Your task to perform on an android device: Open settings Image 0: 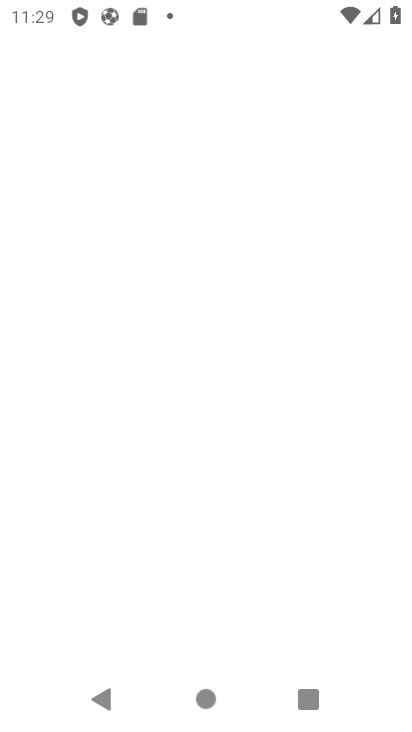
Step 0: drag from (236, 197) to (251, 52)
Your task to perform on an android device: Open settings Image 1: 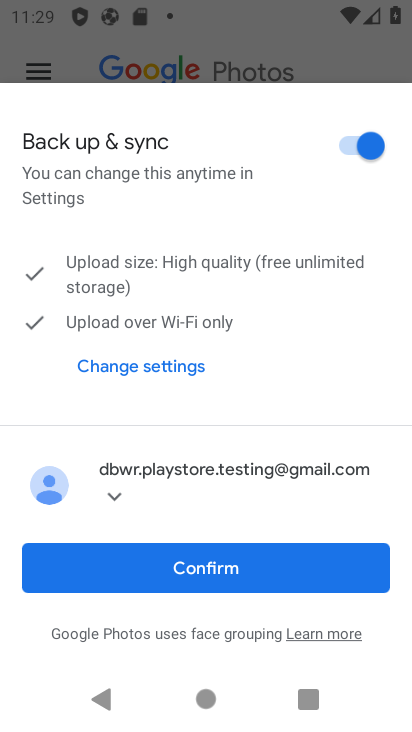
Step 1: click (241, 570)
Your task to perform on an android device: Open settings Image 2: 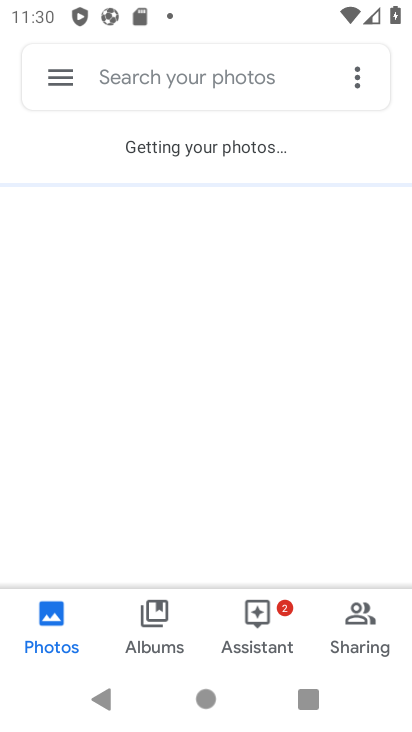
Step 2: press home button
Your task to perform on an android device: Open settings Image 3: 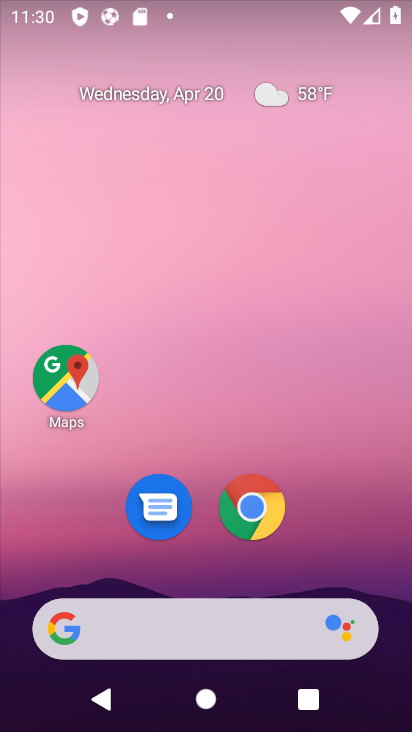
Step 3: drag from (264, 702) to (204, 112)
Your task to perform on an android device: Open settings Image 4: 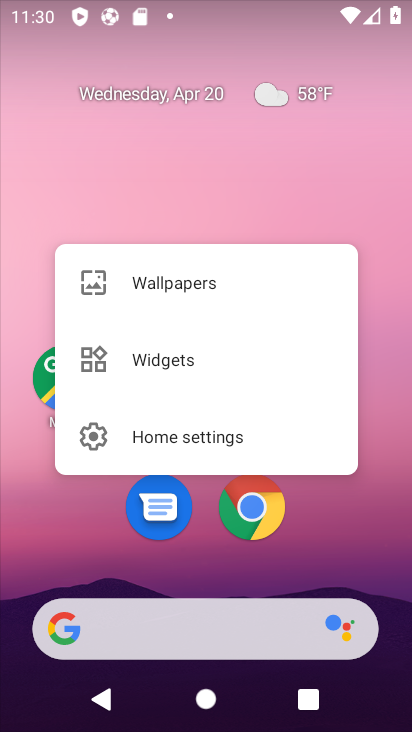
Step 4: click (352, 215)
Your task to perform on an android device: Open settings Image 5: 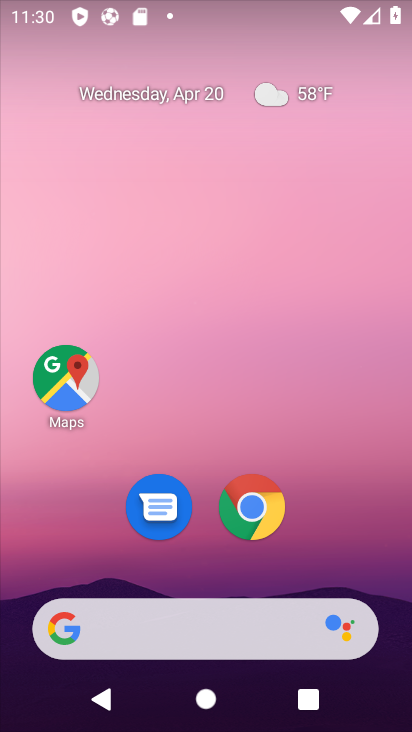
Step 5: click (348, 223)
Your task to perform on an android device: Open settings Image 6: 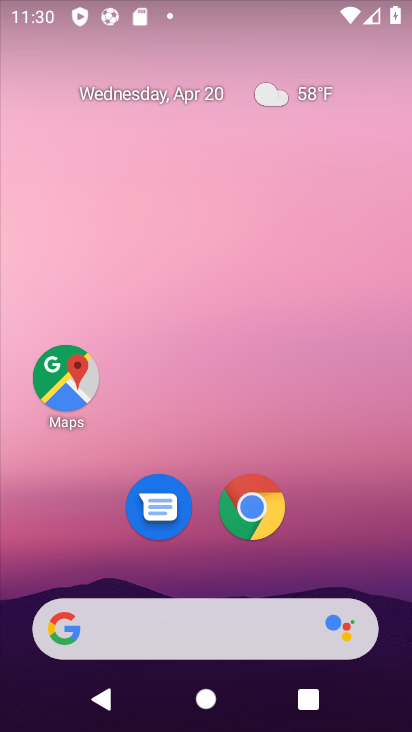
Step 6: drag from (265, 419) to (158, 68)
Your task to perform on an android device: Open settings Image 7: 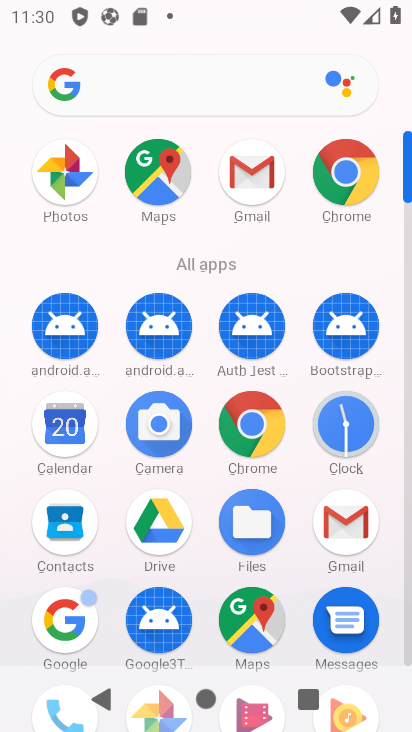
Step 7: drag from (299, 563) to (251, 145)
Your task to perform on an android device: Open settings Image 8: 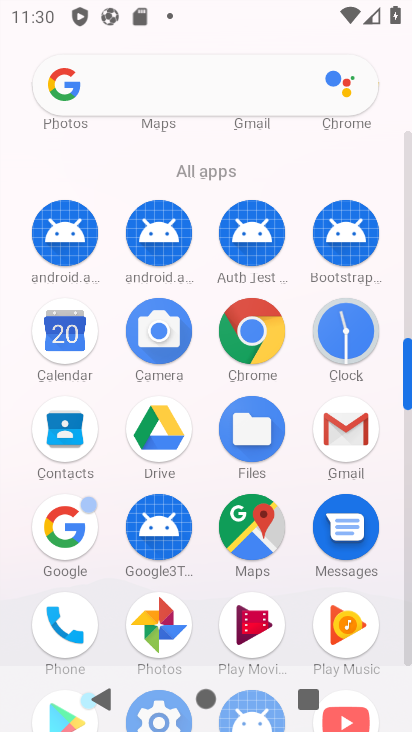
Step 8: drag from (283, 329) to (271, 247)
Your task to perform on an android device: Open settings Image 9: 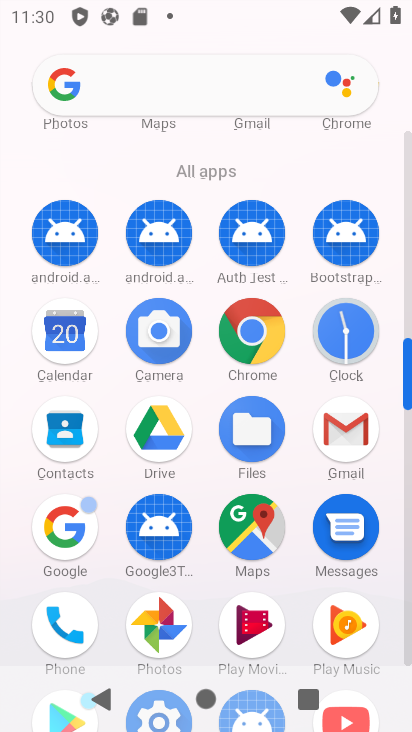
Step 9: drag from (182, 604) to (171, 208)
Your task to perform on an android device: Open settings Image 10: 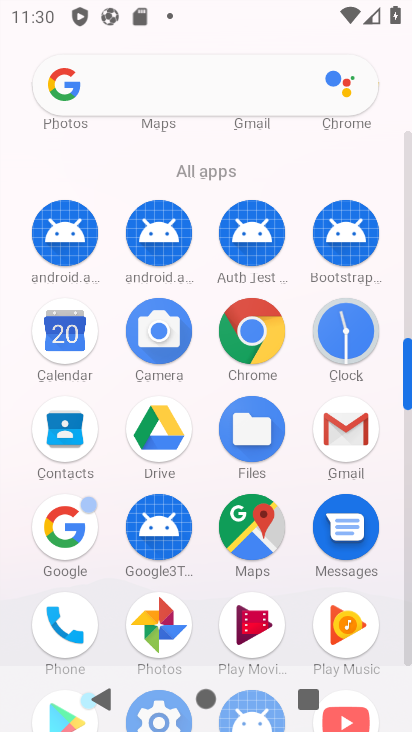
Step 10: drag from (189, 521) to (132, 273)
Your task to perform on an android device: Open settings Image 11: 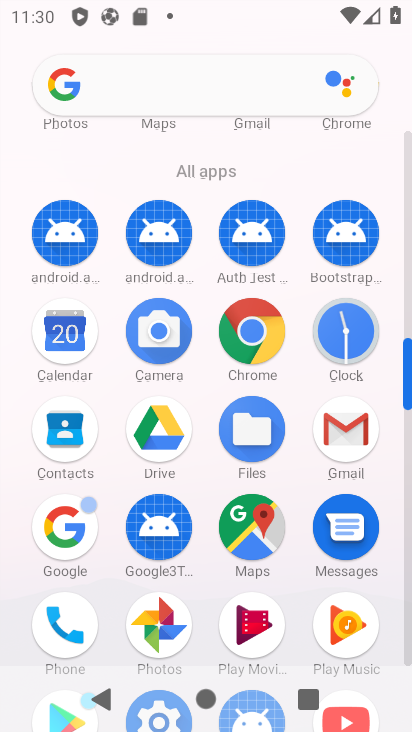
Step 11: drag from (200, 545) to (200, 379)
Your task to perform on an android device: Open settings Image 12: 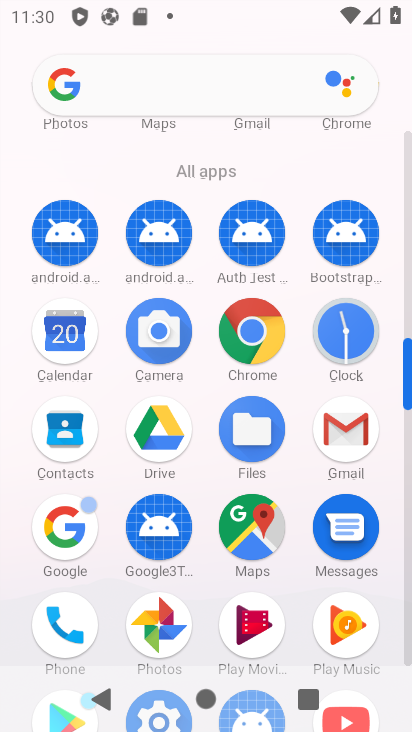
Step 12: drag from (280, 584) to (348, 99)
Your task to perform on an android device: Open settings Image 13: 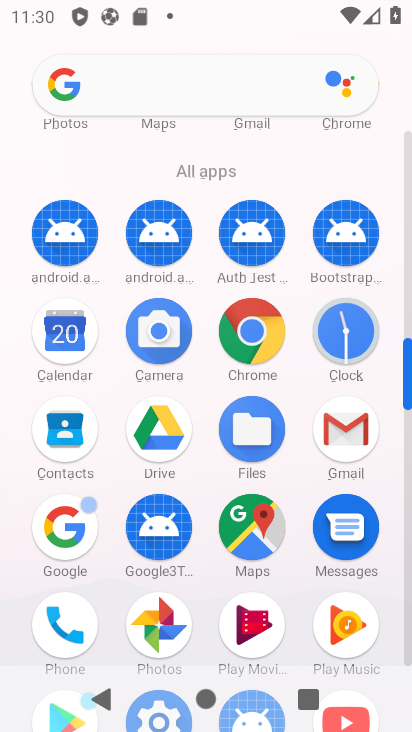
Step 13: drag from (186, 594) to (203, 176)
Your task to perform on an android device: Open settings Image 14: 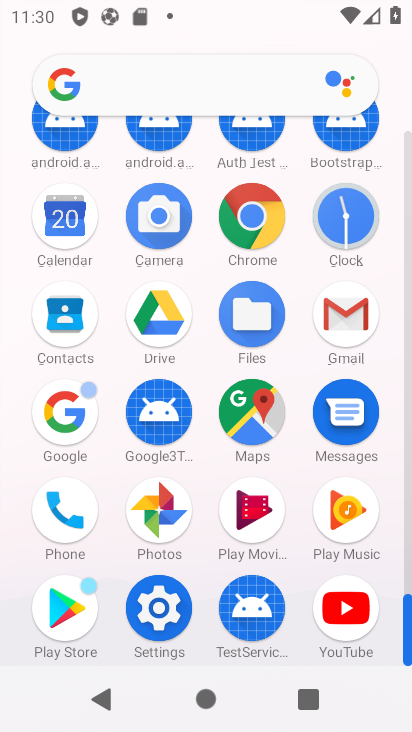
Step 14: click (152, 615)
Your task to perform on an android device: Open settings Image 15: 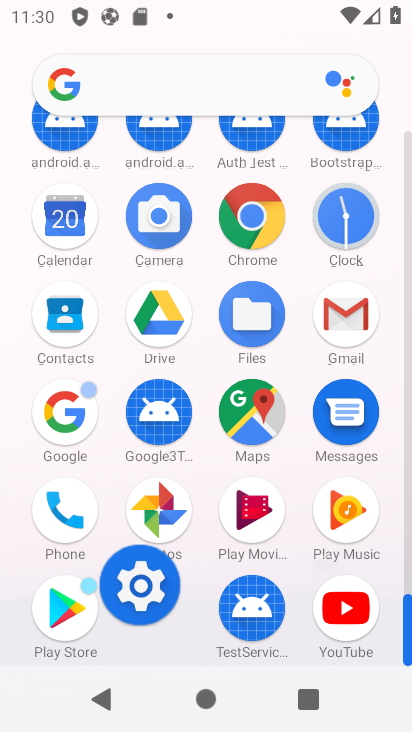
Step 15: click (151, 595)
Your task to perform on an android device: Open settings Image 16: 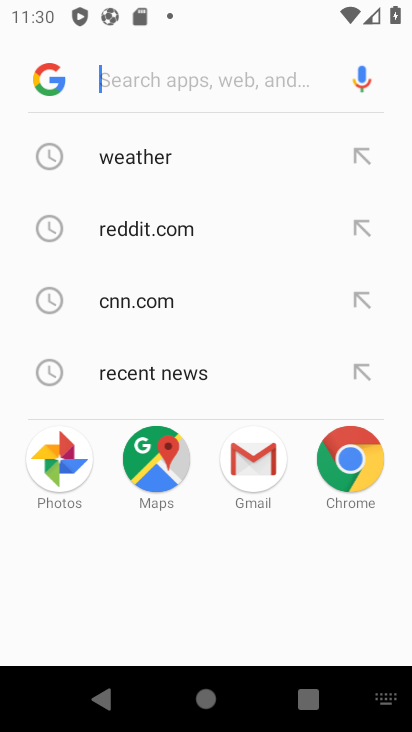
Step 16: press home button
Your task to perform on an android device: Open settings Image 17: 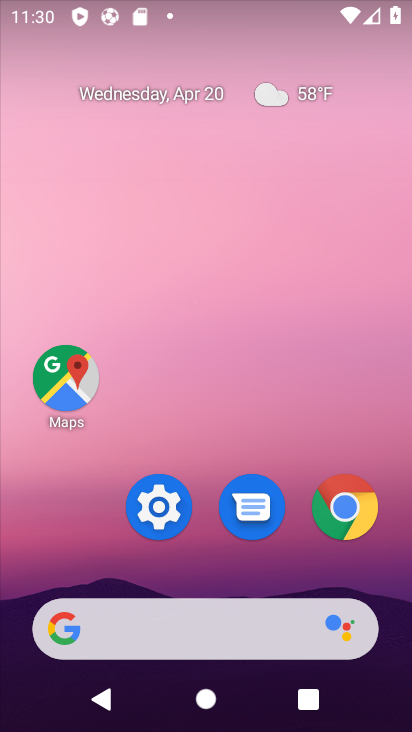
Step 17: drag from (236, 685) to (188, 85)
Your task to perform on an android device: Open settings Image 18: 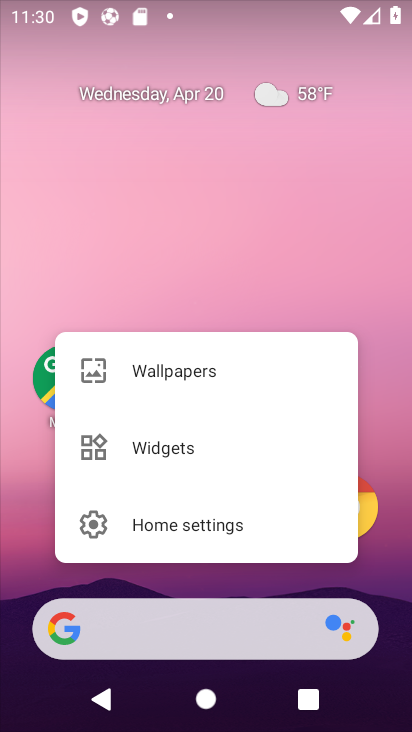
Step 18: drag from (271, 479) to (242, 20)
Your task to perform on an android device: Open settings Image 19: 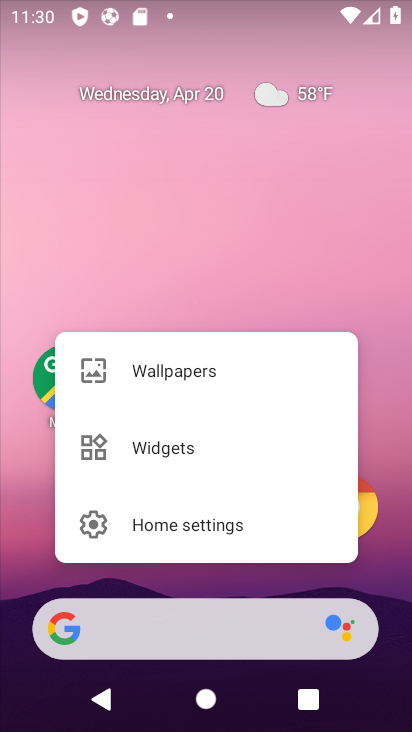
Step 19: drag from (383, 499) to (394, 72)
Your task to perform on an android device: Open settings Image 20: 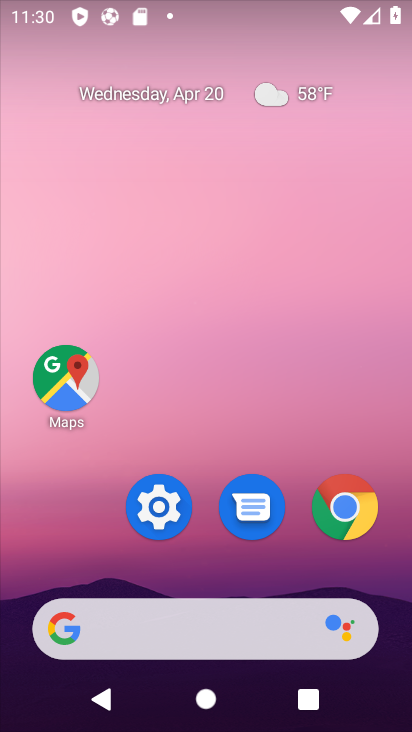
Step 20: drag from (352, 395) to (335, 23)
Your task to perform on an android device: Open settings Image 21: 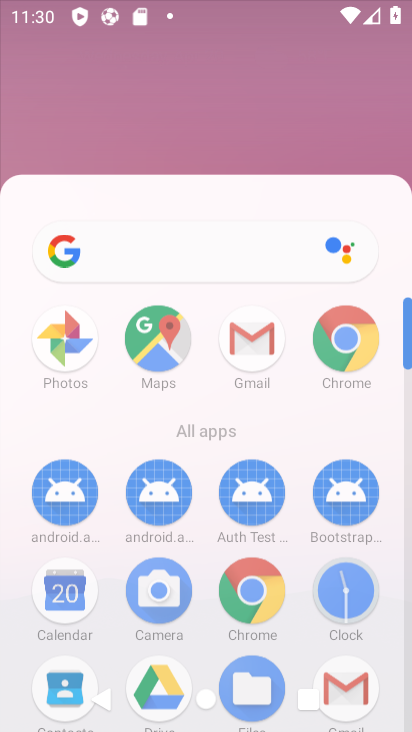
Step 21: drag from (226, 204) to (208, 40)
Your task to perform on an android device: Open settings Image 22: 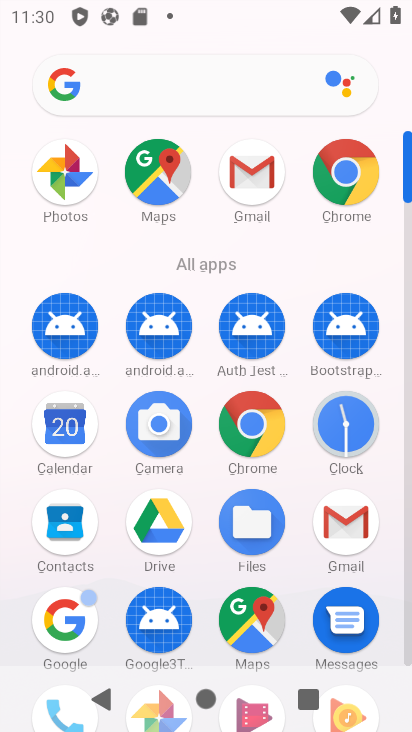
Step 22: drag from (210, 462) to (189, 58)
Your task to perform on an android device: Open settings Image 23: 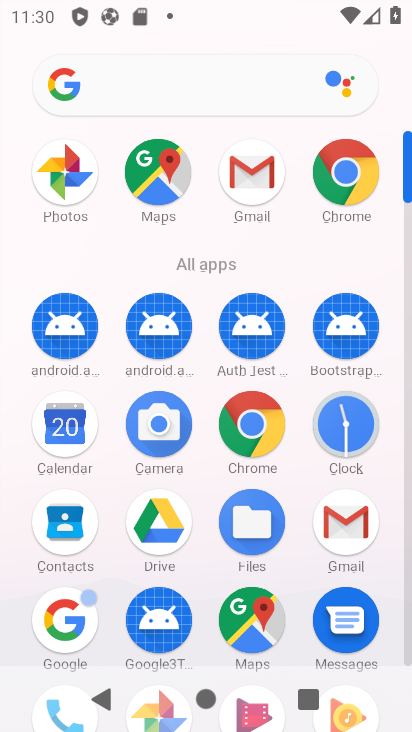
Step 23: drag from (179, 201) to (117, 118)
Your task to perform on an android device: Open settings Image 24: 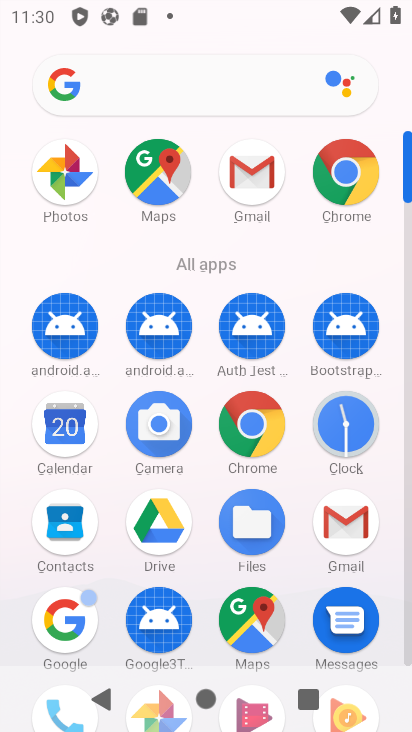
Step 24: drag from (212, 587) to (185, 246)
Your task to perform on an android device: Open settings Image 25: 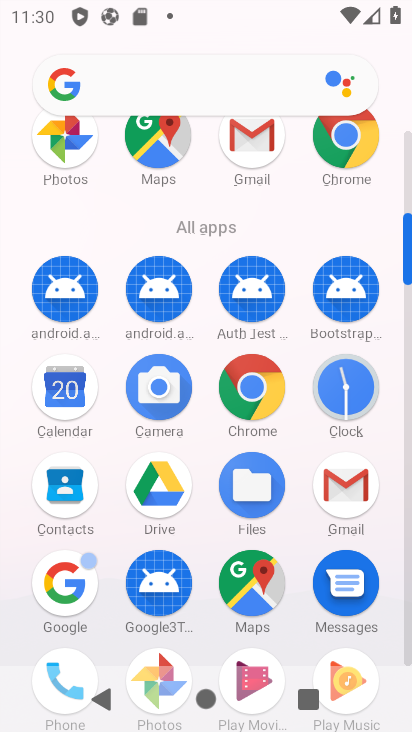
Step 25: drag from (246, 386) to (247, 215)
Your task to perform on an android device: Open settings Image 26: 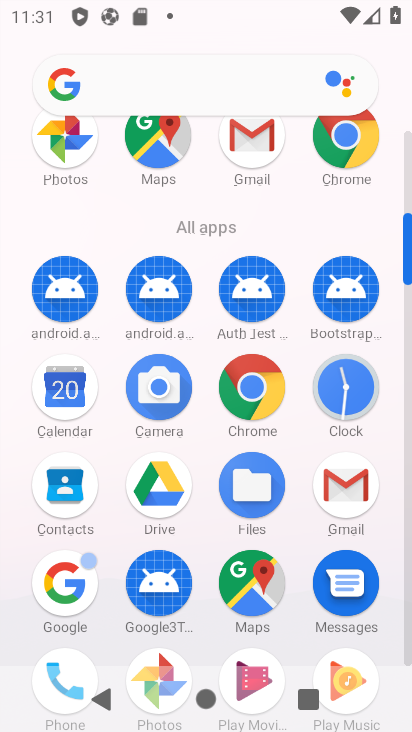
Step 26: drag from (202, 585) to (186, 189)
Your task to perform on an android device: Open settings Image 27: 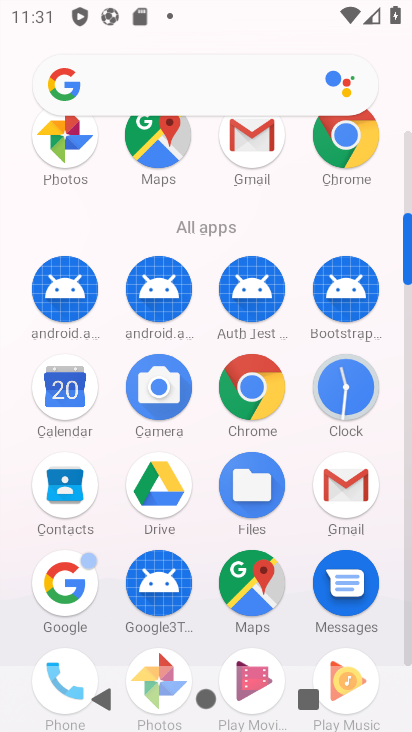
Step 27: drag from (246, 461) to (246, 129)
Your task to perform on an android device: Open settings Image 28: 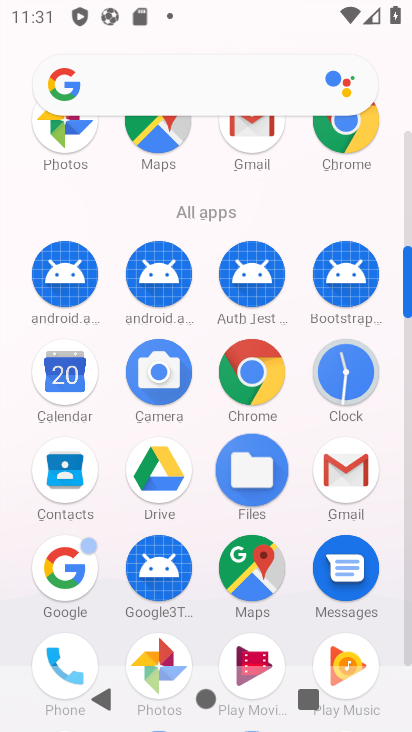
Step 28: drag from (260, 516) to (282, 246)
Your task to perform on an android device: Open settings Image 29: 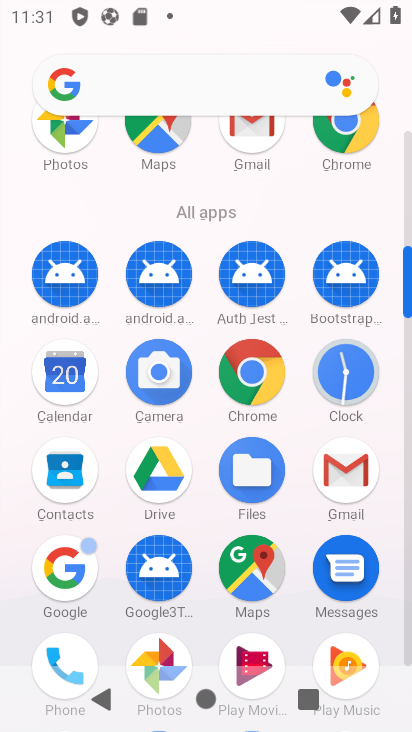
Step 29: drag from (287, 497) to (317, 239)
Your task to perform on an android device: Open settings Image 30: 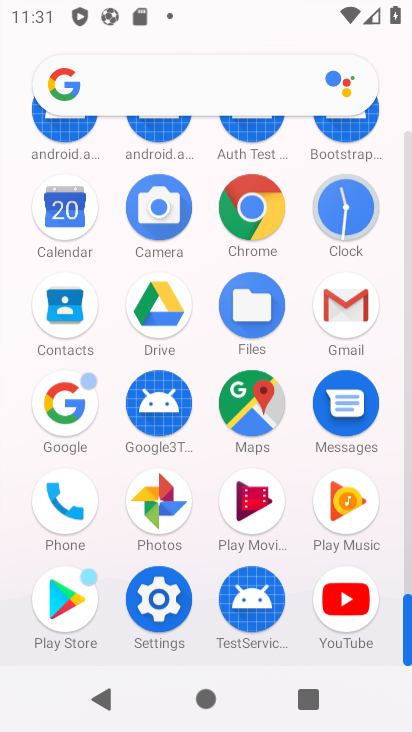
Step 30: drag from (289, 355) to (290, 252)
Your task to perform on an android device: Open settings Image 31: 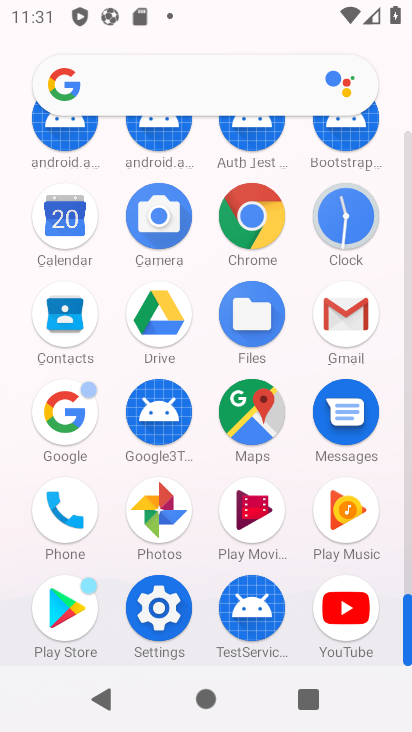
Step 31: click (162, 620)
Your task to perform on an android device: Open settings Image 32: 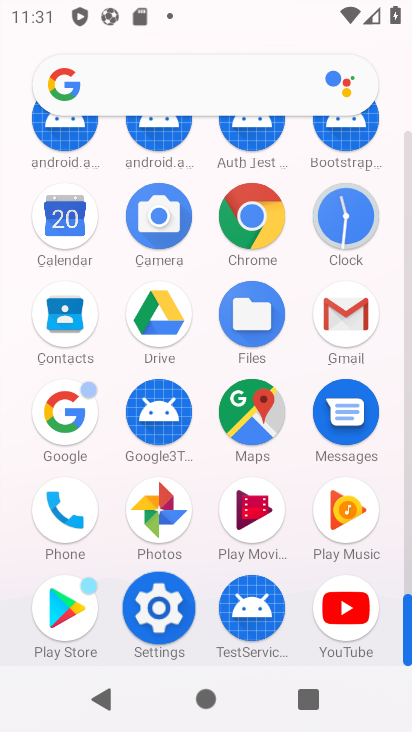
Step 32: click (163, 609)
Your task to perform on an android device: Open settings Image 33: 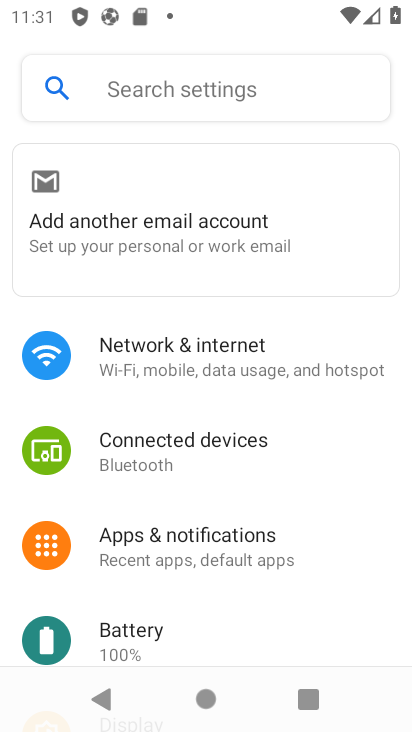
Step 33: task complete